Your task to perform on an android device: toggle javascript in the chrome app Image 0: 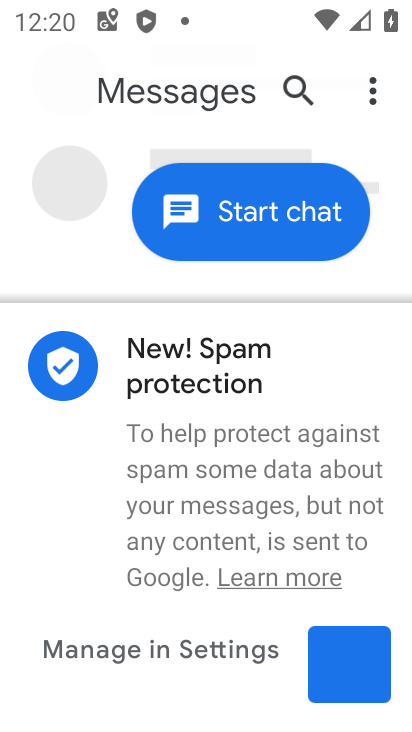
Step 0: click (381, 96)
Your task to perform on an android device: toggle javascript in the chrome app Image 1: 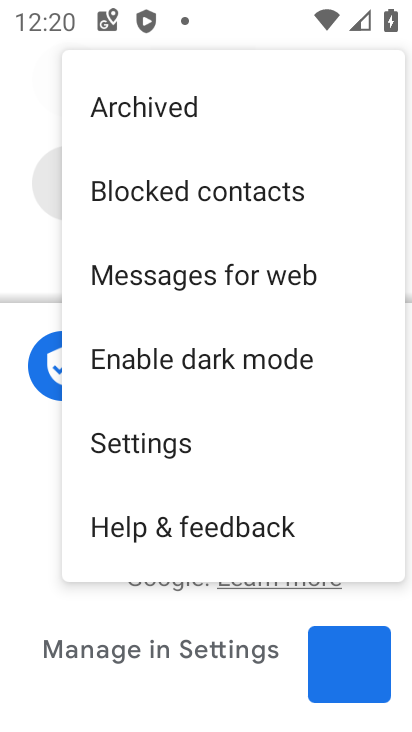
Step 1: click (14, 233)
Your task to perform on an android device: toggle javascript in the chrome app Image 2: 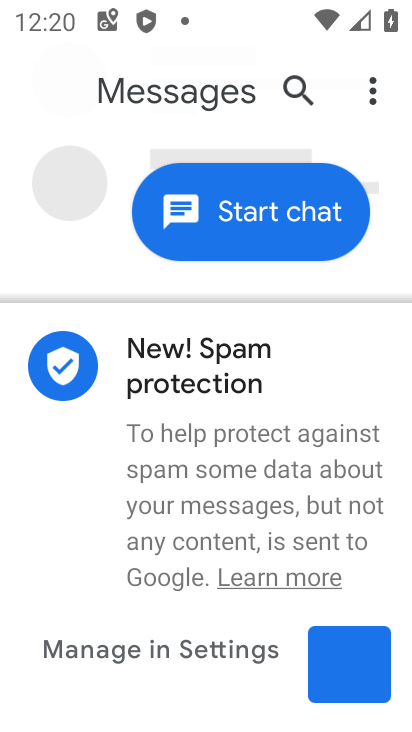
Step 2: press home button
Your task to perform on an android device: toggle javascript in the chrome app Image 3: 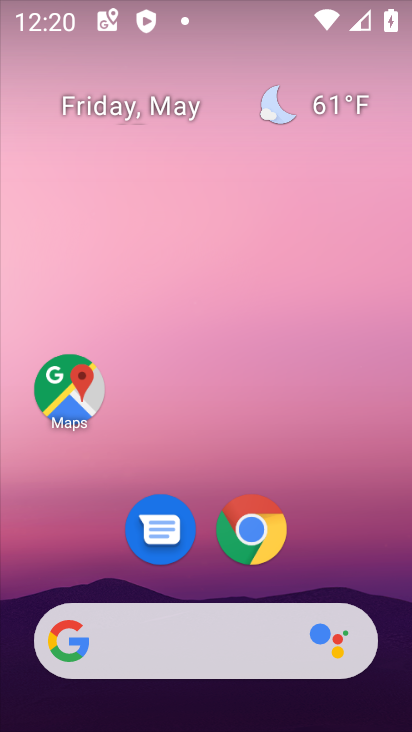
Step 3: drag from (344, 555) to (337, 98)
Your task to perform on an android device: toggle javascript in the chrome app Image 4: 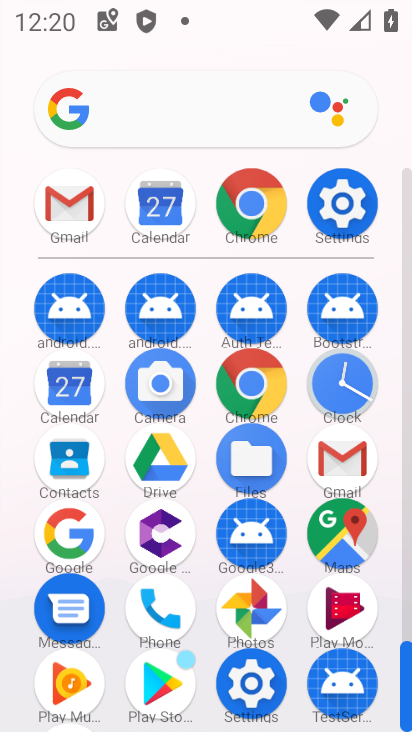
Step 4: click (269, 205)
Your task to perform on an android device: toggle javascript in the chrome app Image 5: 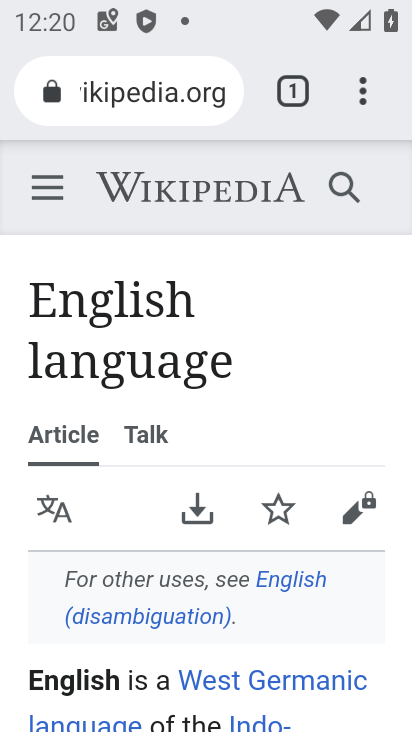
Step 5: click (384, 97)
Your task to perform on an android device: toggle javascript in the chrome app Image 6: 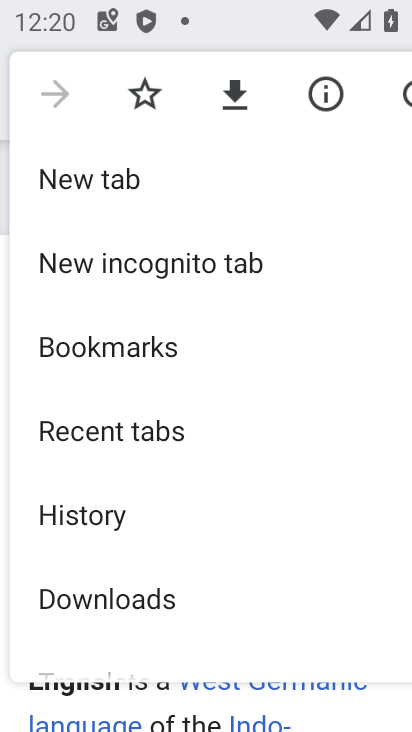
Step 6: drag from (200, 596) to (215, 351)
Your task to perform on an android device: toggle javascript in the chrome app Image 7: 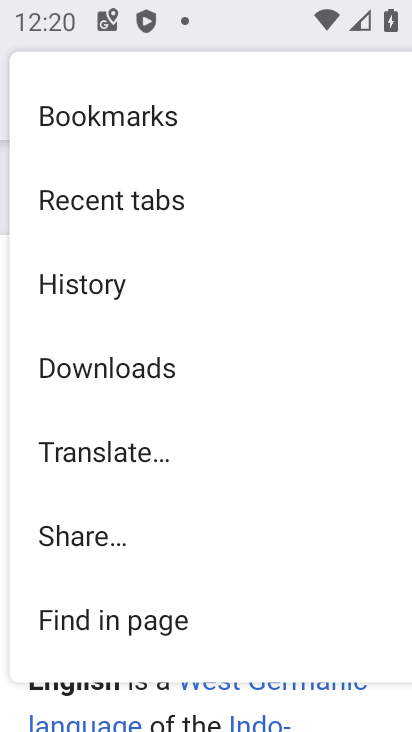
Step 7: drag from (240, 572) to (240, 237)
Your task to perform on an android device: toggle javascript in the chrome app Image 8: 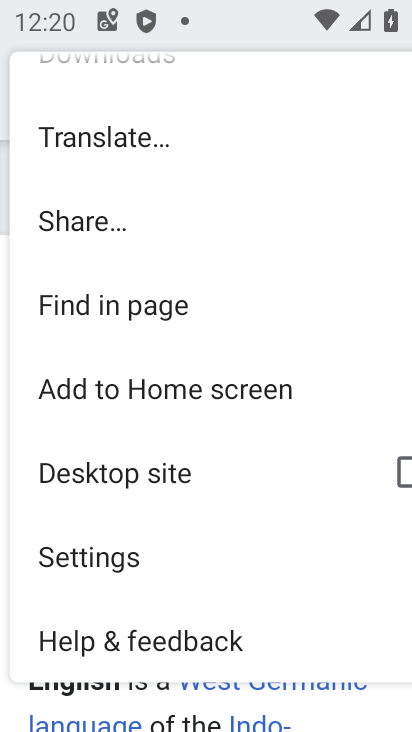
Step 8: click (197, 550)
Your task to perform on an android device: toggle javascript in the chrome app Image 9: 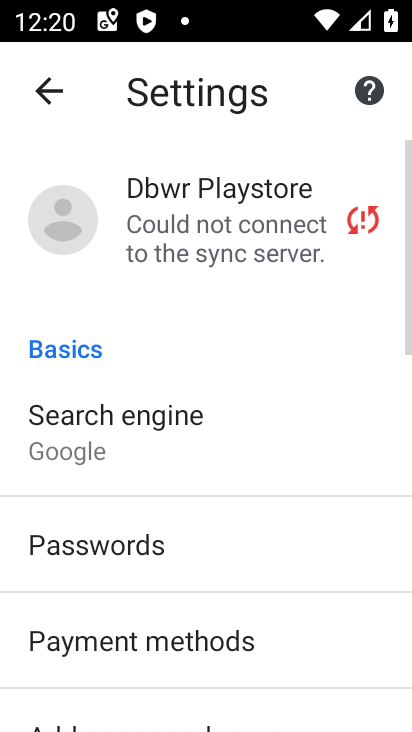
Step 9: drag from (194, 623) to (193, 192)
Your task to perform on an android device: toggle javascript in the chrome app Image 10: 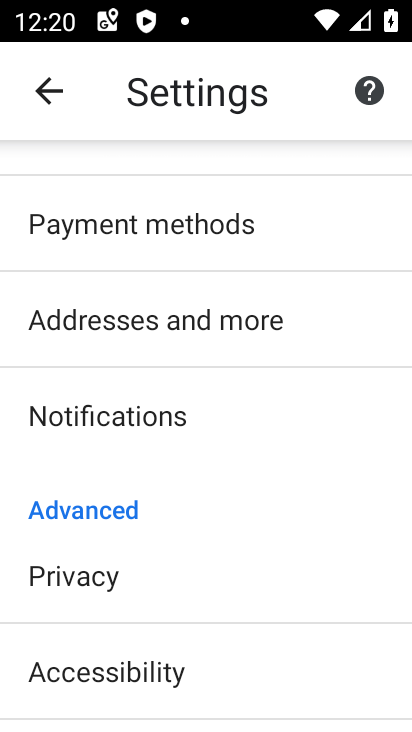
Step 10: drag from (216, 580) to (219, 251)
Your task to perform on an android device: toggle javascript in the chrome app Image 11: 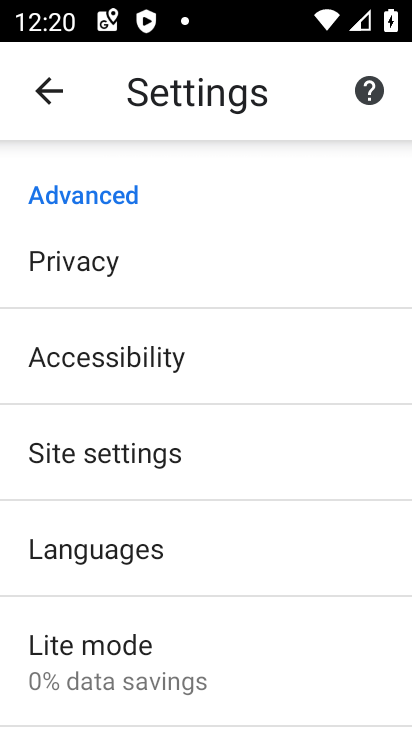
Step 11: click (128, 444)
Your task to perform on an android device: toggle javascript in the chrome app Image 12: 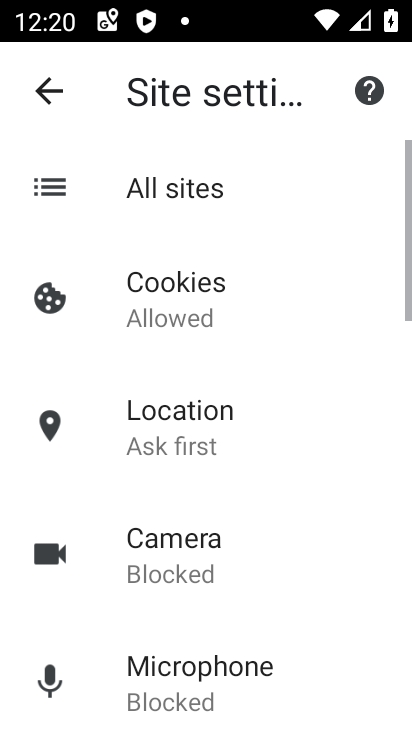
Step 12: drag from (222, 672) to (234, 291)
Your task to perform on an android device: toggle javascript in the chrome app Image 13: 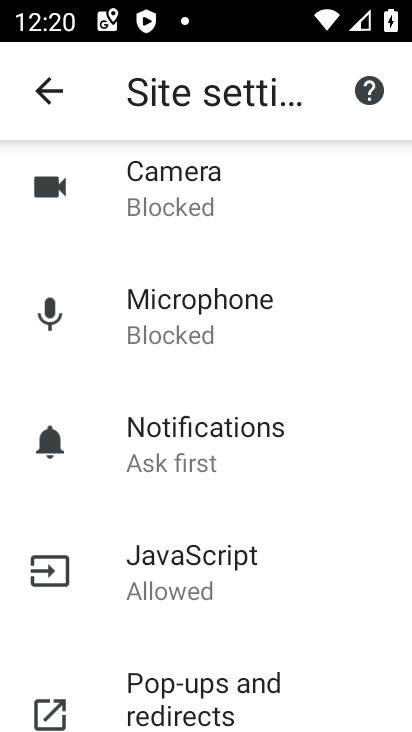
Step 13: click (280, 570)
Your task to perform on an android device: toggle javascript in the chrome app Image 14: 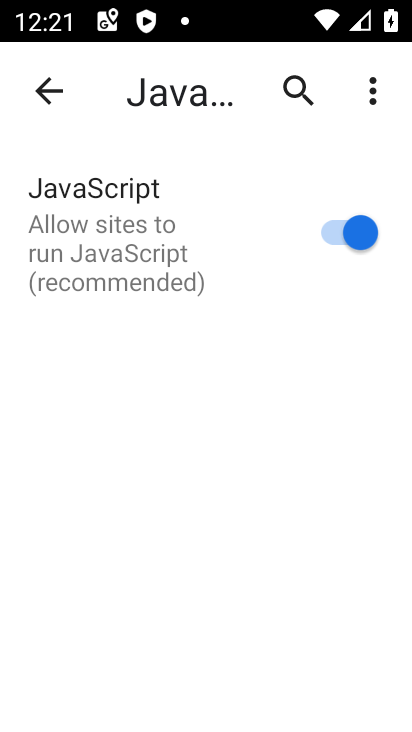
Step 14: click (357, 213)
Your task to perform on an android device: toggle javascript in the chrome app Image 15: 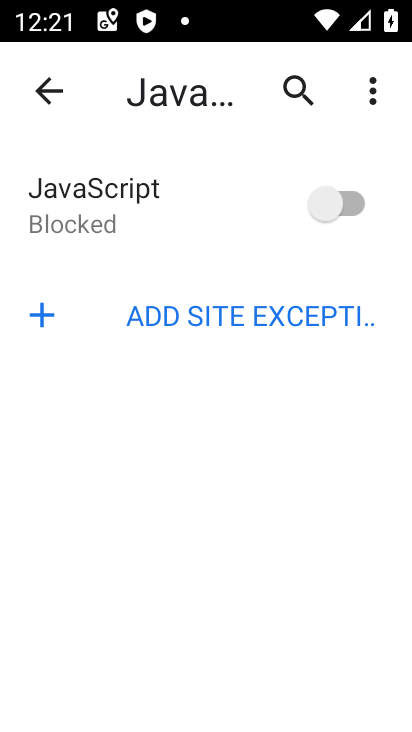
Step 15: task complete